Your task to perform on an android device: Open Maps and search for coffee Image 0: 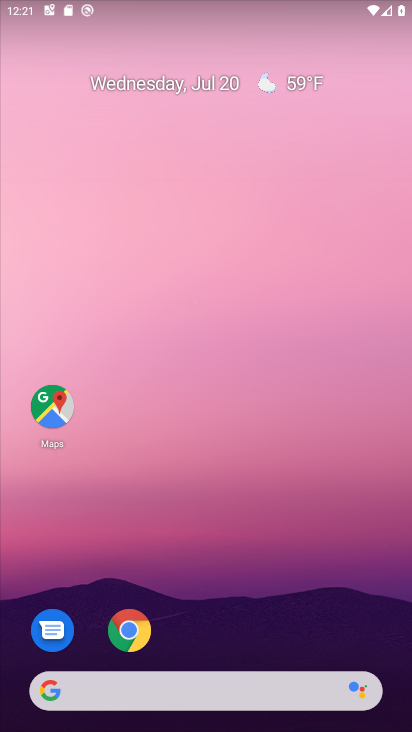
Step 0: click (57, 408)
Your task to perform on an android device: Open Maps and search for coffee Image 1: 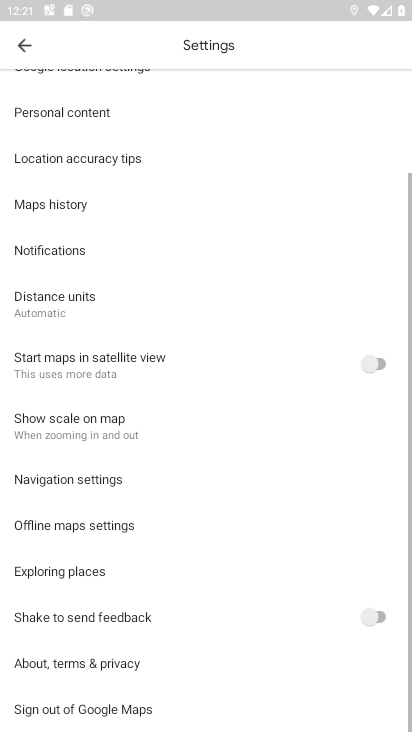
Step 1: press back button
Your task to perform on an android device: Open Maps and search for coffee Image 2: 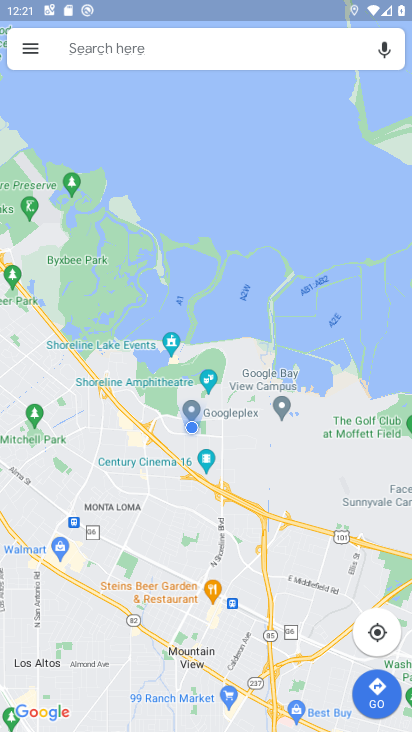
Step 2: click (128, 45)
Your task to perform on an android device: Open Maps and search for coffee Image 3: 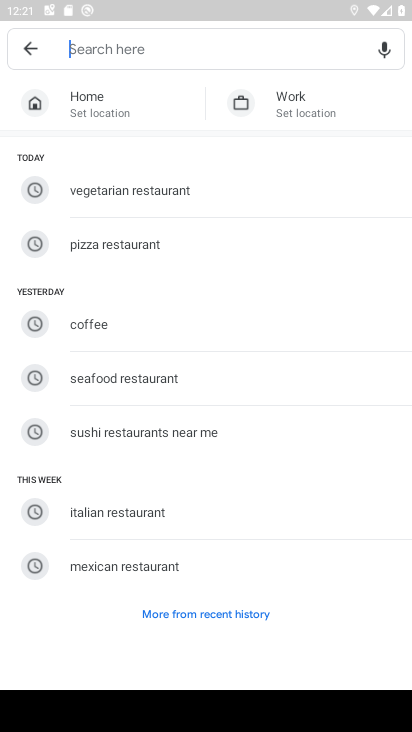
Step 3: type "coffee"
Your task to perform on an android device: Open Maps and search for coffee Image 4: 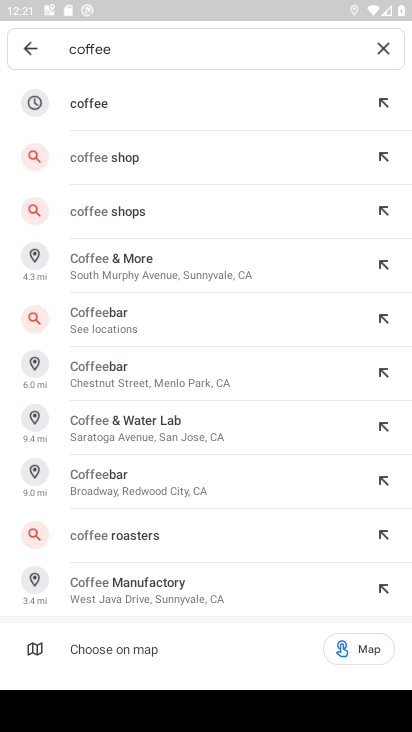
Step 4: click (81, 93)
Your task to perform on an android device: Open Maps and search for coffee Image 5: 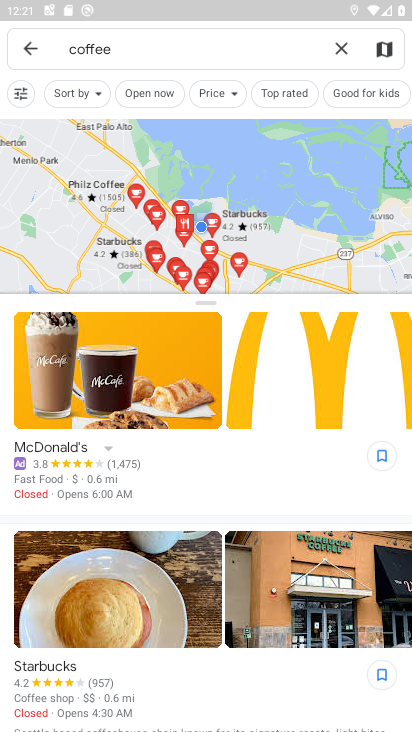
Step 5: task complete